Your task to perform on an android device: What's the weather? Image 0: 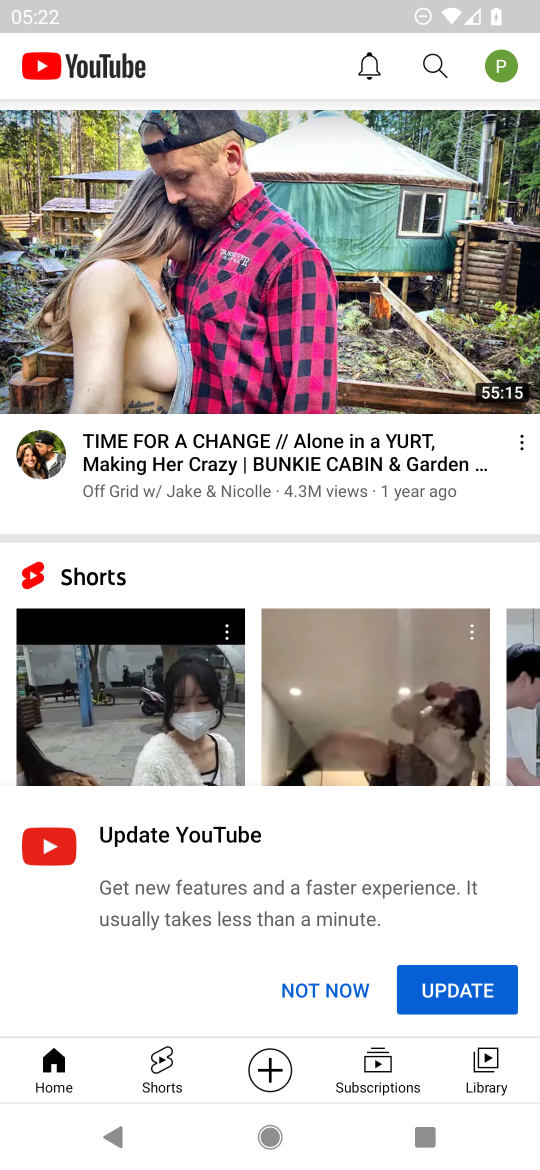
Step 0: press home button
Your task to perform on an android device: What's the weather? Image 1: 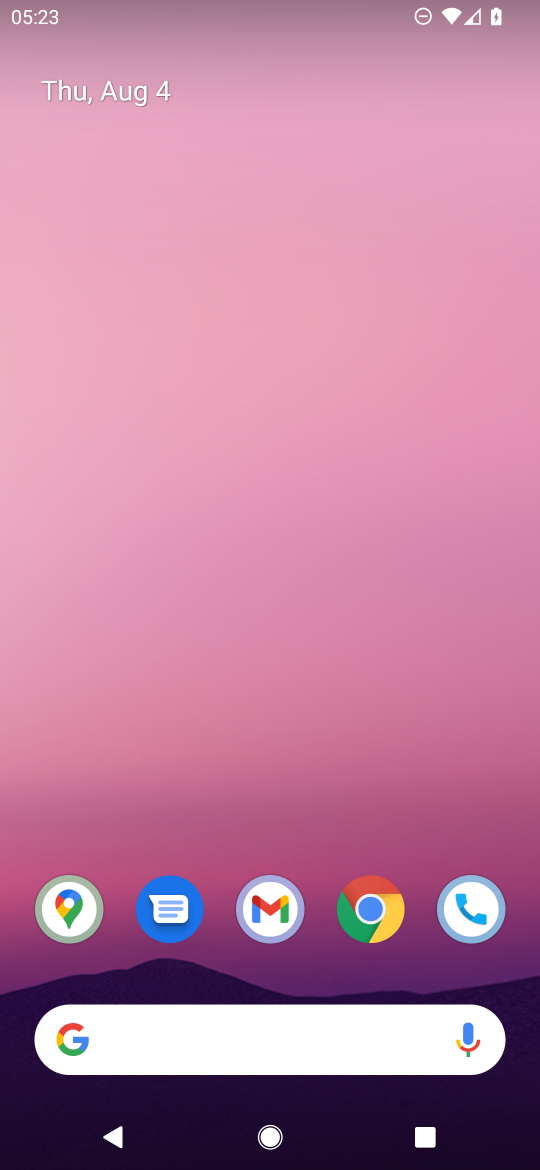
Step 1: click (80, 1041)
Your task to perform on an android device: What's the weather? Image 2: 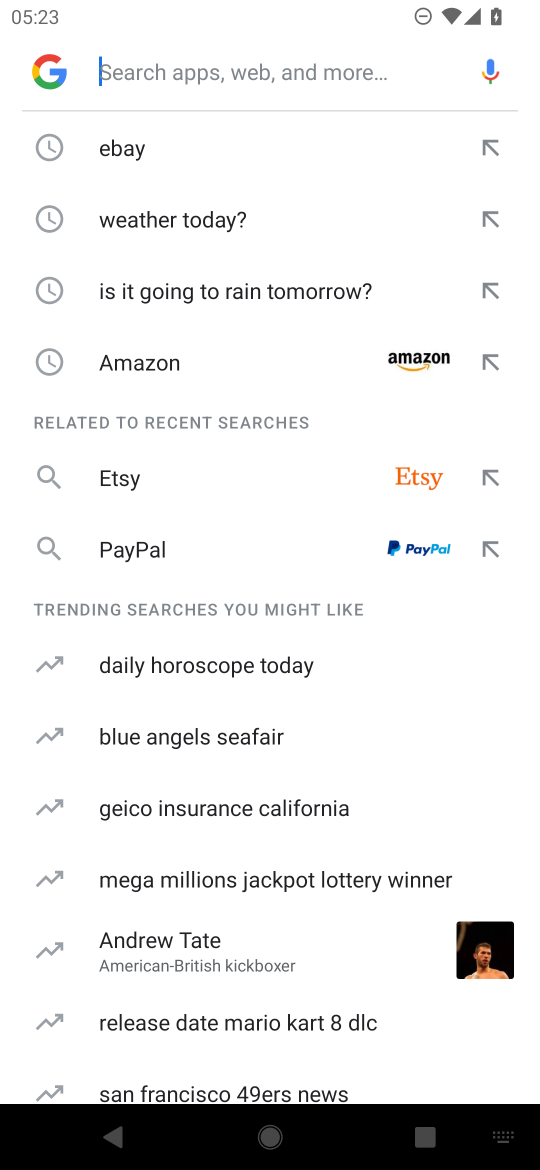
Step 2: type " weather?"
Your task to perform on an android device: What's the weather? Image 3: 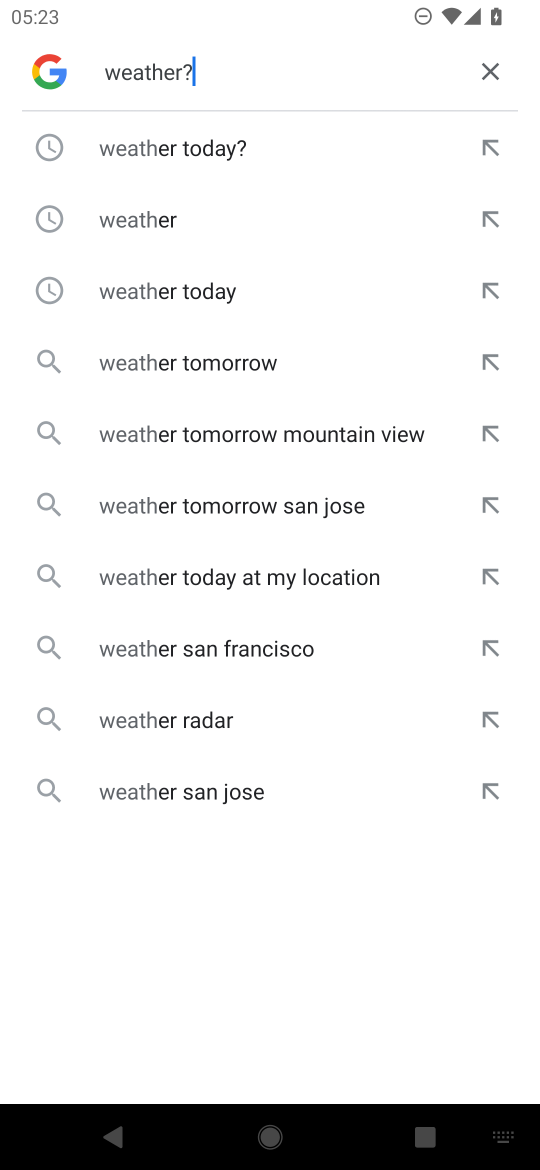
Step 3: press enter
Your task to perform on an android device: What's the weather? Image 4: 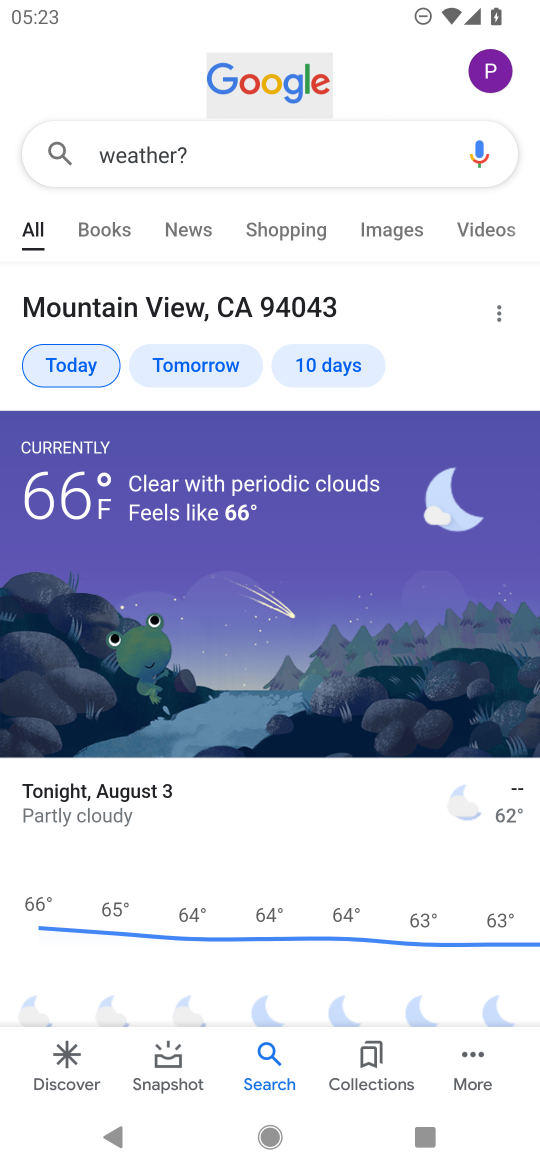
Step 4: task complete